Your task to perform on an android device: turn on improve location accuracy Image 0: 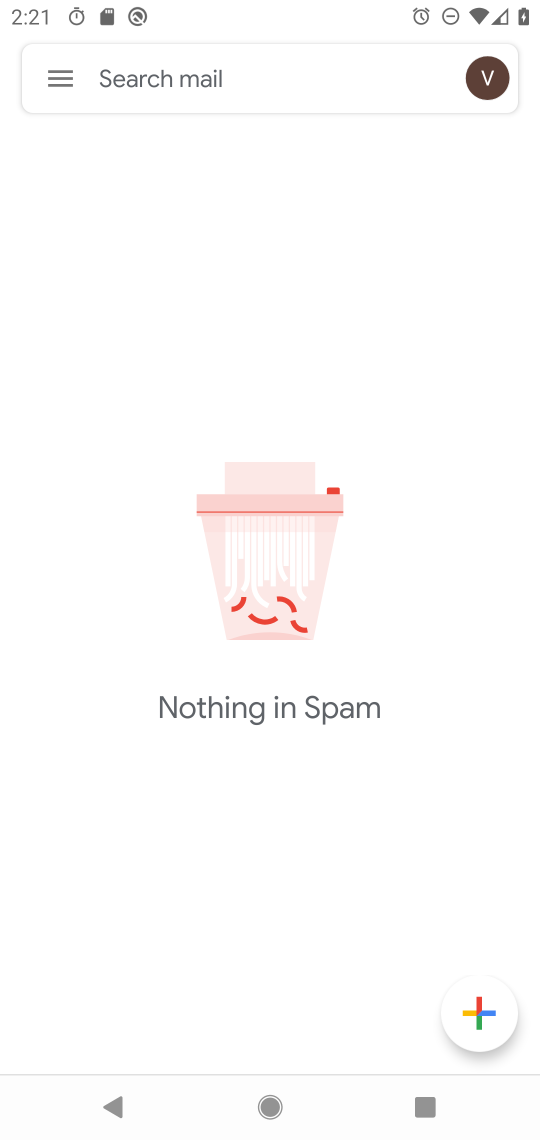
Step 0: press home button
Your task to perform on an android device: turn on improve location accuracy Image 1: 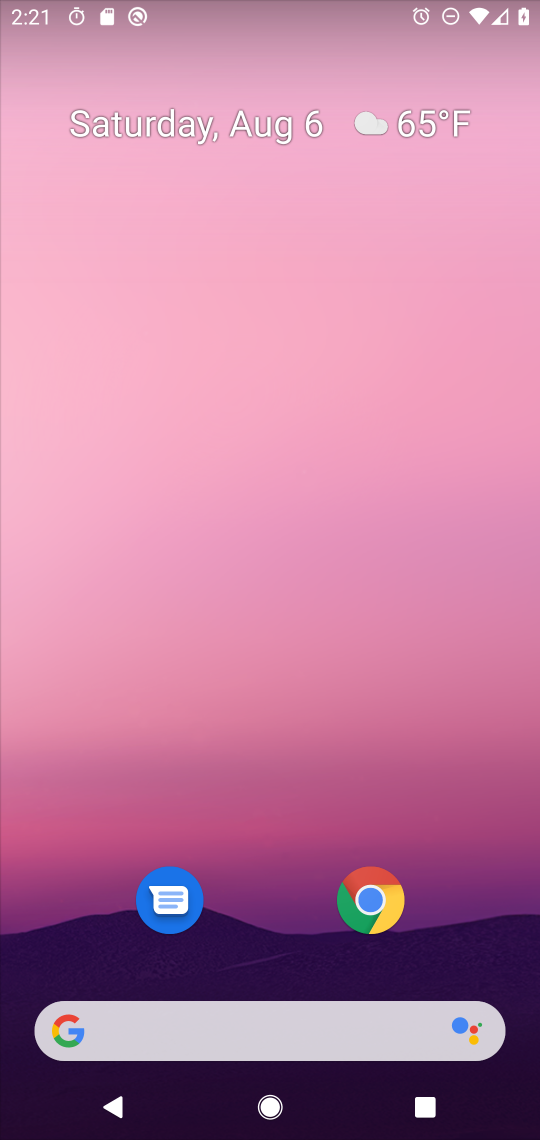
Step 1: drag from (268, 983) to (261, 154)
Your task to perform on an android device: turn on improve location accuracy Image 2: 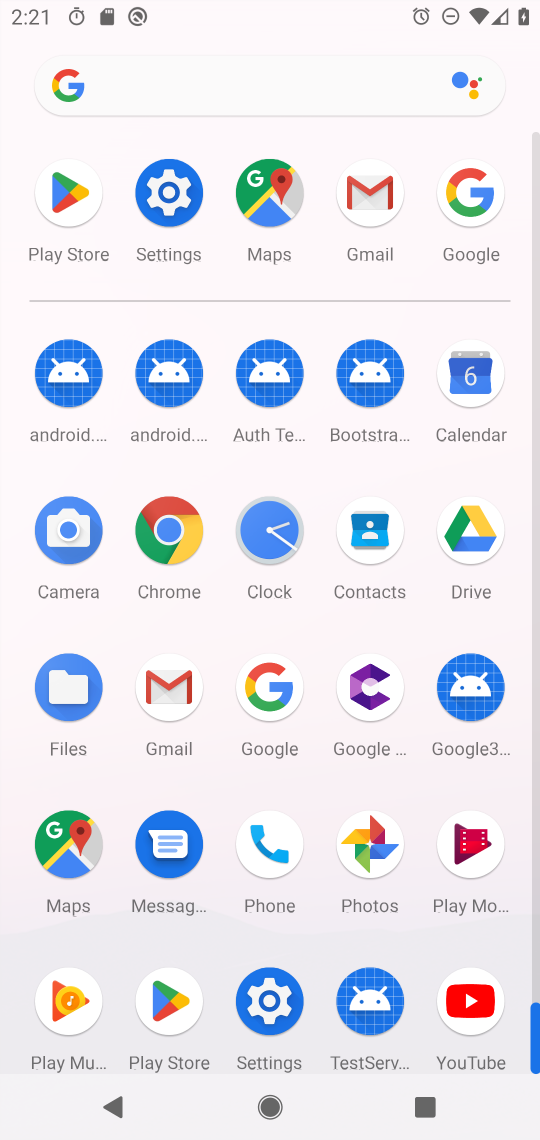
Step 2: click (168, 177)
Your task to perform on an android device: turn on improve location accuracy Image 3: 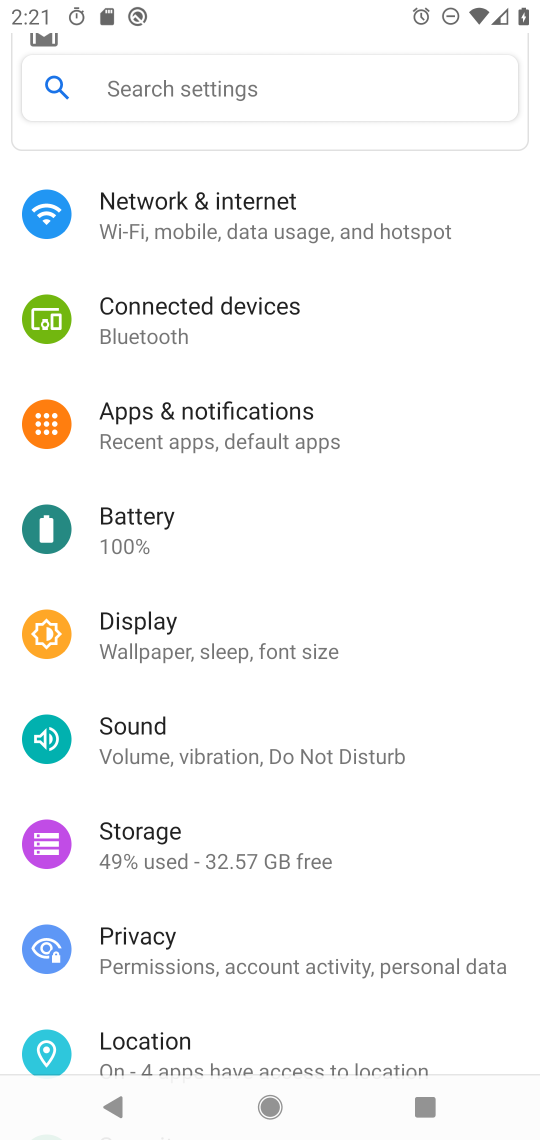
Step 3: click (119, 1033)
Your task to perform on an android device: turn on improve location accuracy Image 4: 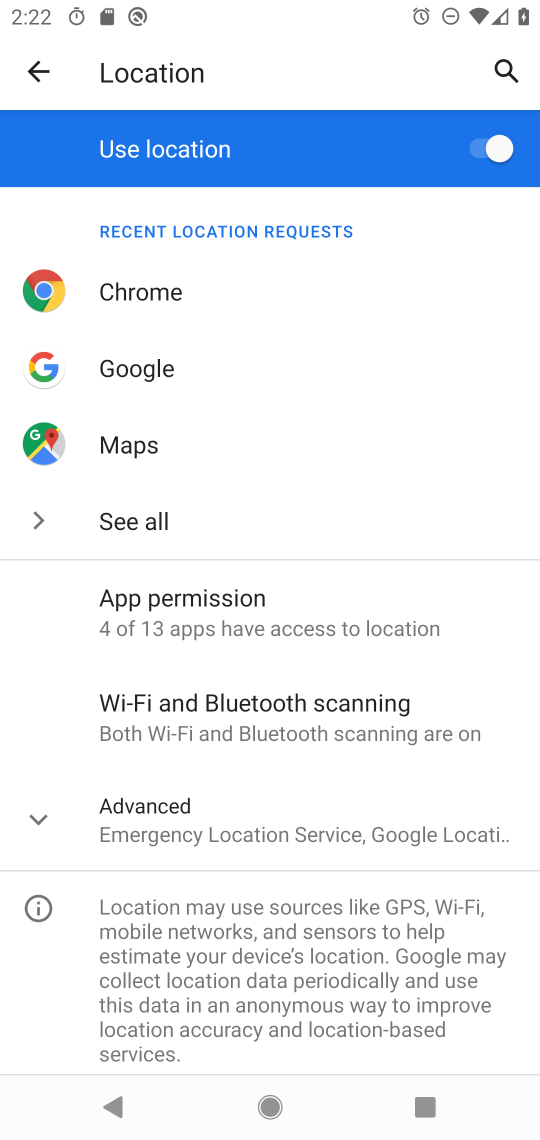
Step 4: click (196, 831)
Your task to perform on an android device: turn on improve location accuracy Image 5: 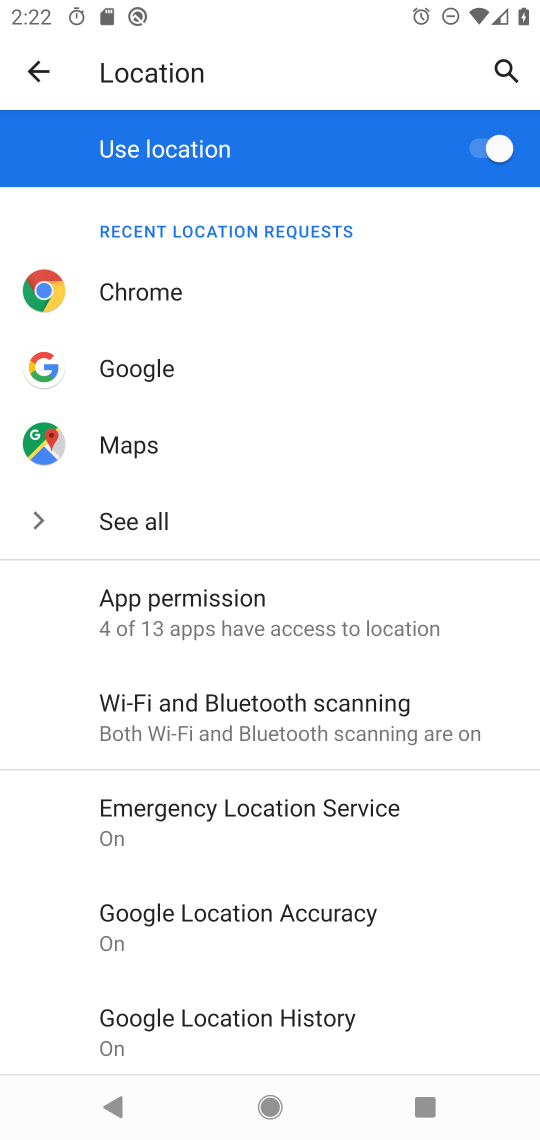
Step 5: click (316, 915)
Your task to perform on an android device: turn on improve location accuracy Image 6: 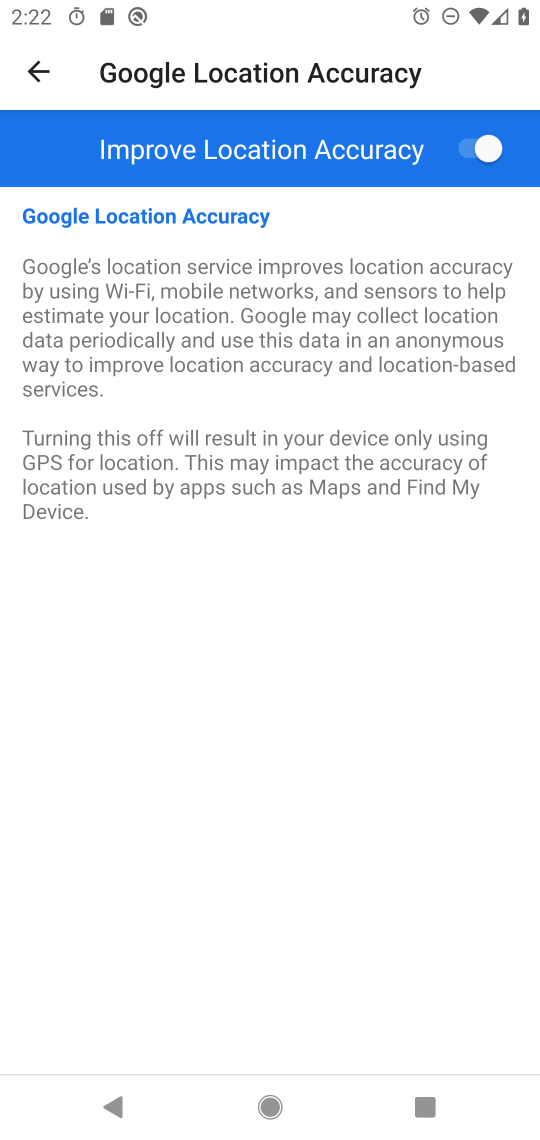
Step 6: task complete